Your task to perform on an android device: turn on wifi Image 0: 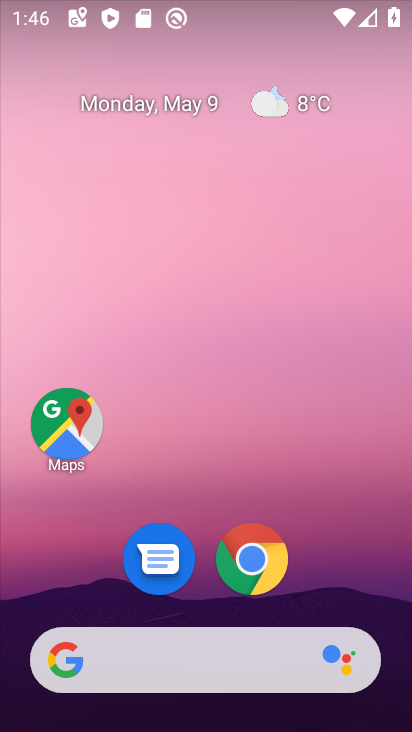
Step 0: drag from (328, 571) to (291, 0)
Your task to perform on an android device: turn on wifi Image 1: 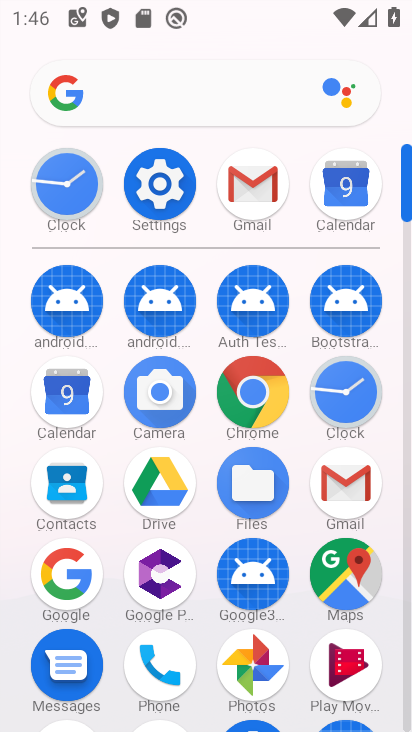
Step 1: click (159, 185)
Your task to perform on an android device: turn on wifi Image 2: 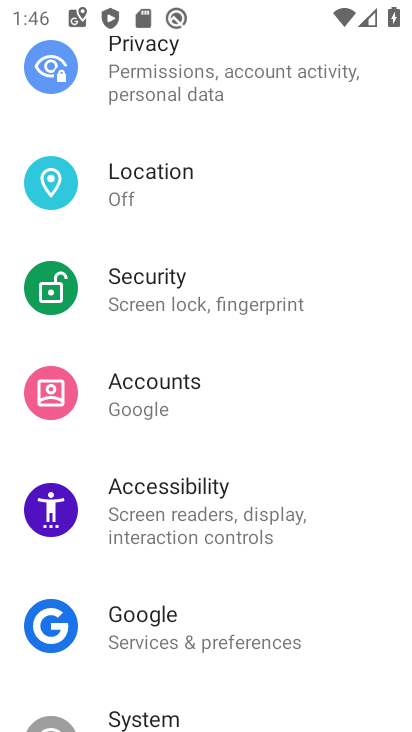
Step 2: drag from (203, 157) to (215, 570)
Your task to perform on an android device: turn on wifi Image 3: 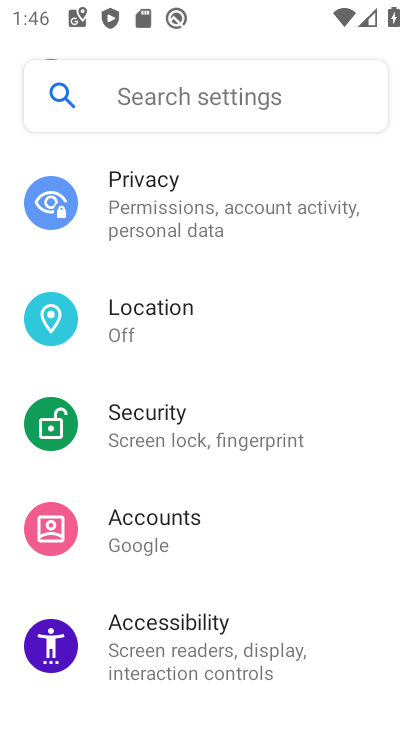
Step 3: drag from (215, 276) to (253, 678)
Your task to perform on an android device: turn on wifi Image 4: 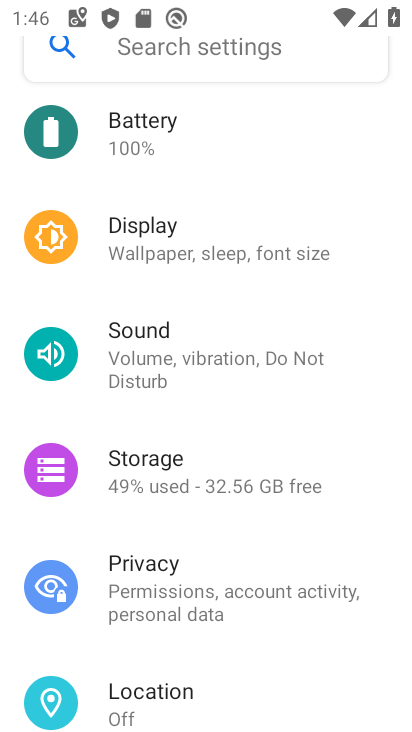
Step 4: drag from (142, 185) to (284, 701)
Your task to perform on an android device: turn on wifi Image 5: 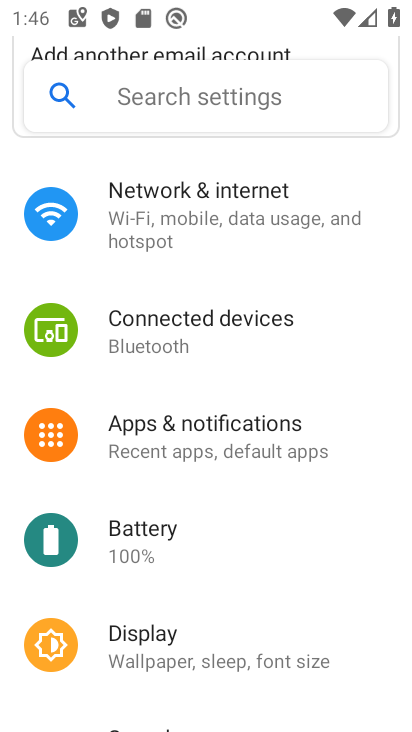
Step 5: drag from (143, 276) to (279, 723)
Your task to perform on an android device: turn on wifi Image 6: 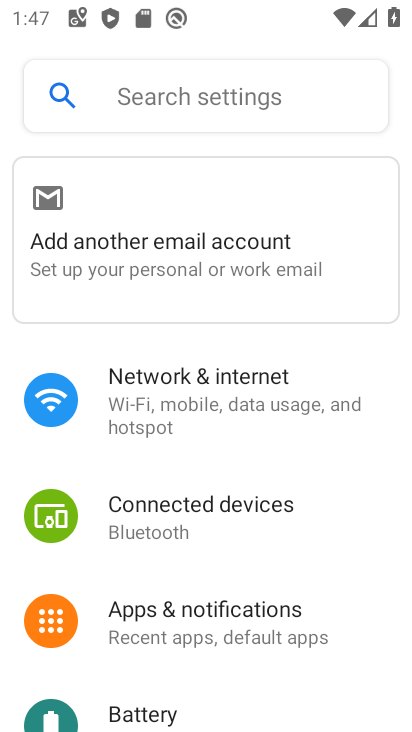
Step 6: click (192, 369)
Your task to perform on an android device: turn on wifi Image 7: 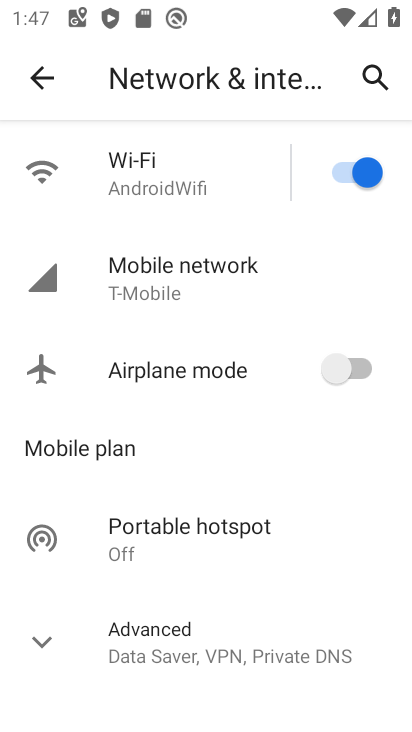
Step 7: task complete